Your task to perform on an android device: delete browsing data in the chrome app Image 0: 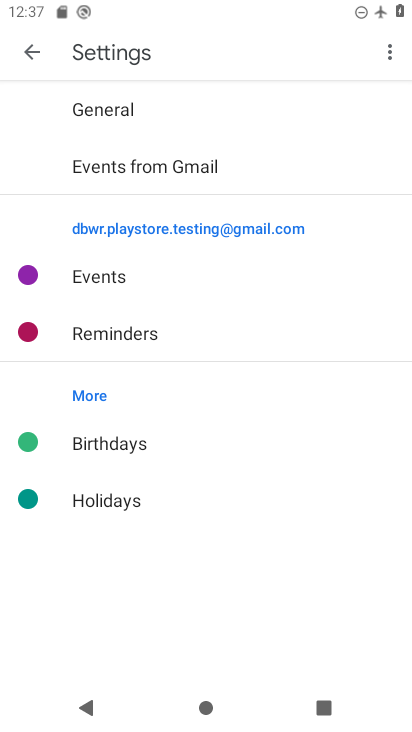
Step 0: press home button
Your task to perform on an android device: delete browsing data in the chrome app Image 1: 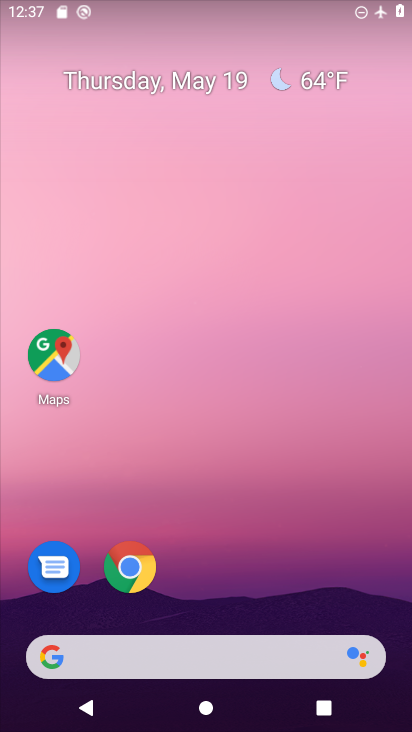
Step 1: click (138, 579)
Your task to perform on an android device: delete browsing data in the chrome app Image 2: 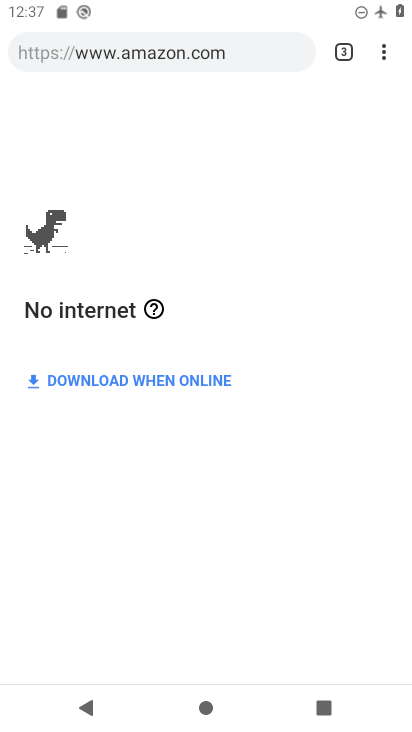
Step 2: drag from (388, 50) to (226, 295)
Your task to perform on an android device: delete browsing data in the chrome app Image 3: 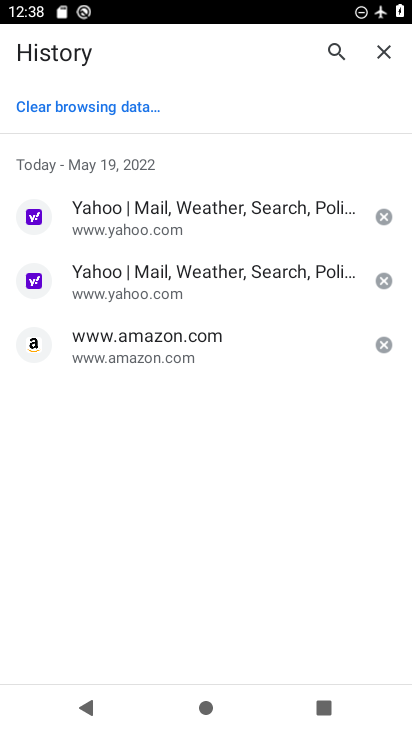
Step 3: click (76, 112)
Your task to perform on an android device: delete browsing data in the chrome app Image 4: 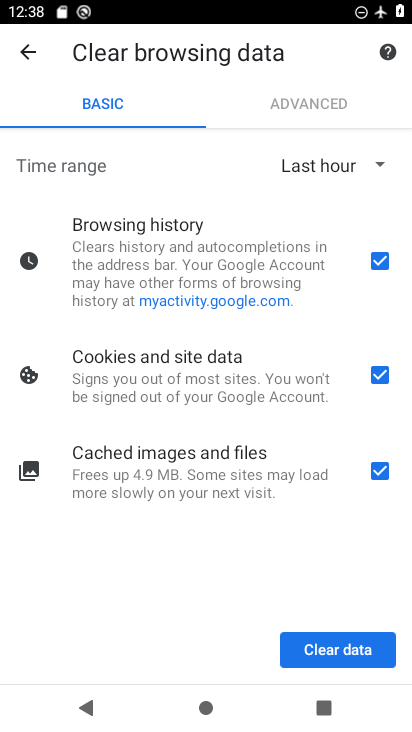
Step 4: click (383, 384)
Your task to perform on an android device: delete browsing data in the chrome app Image 5: 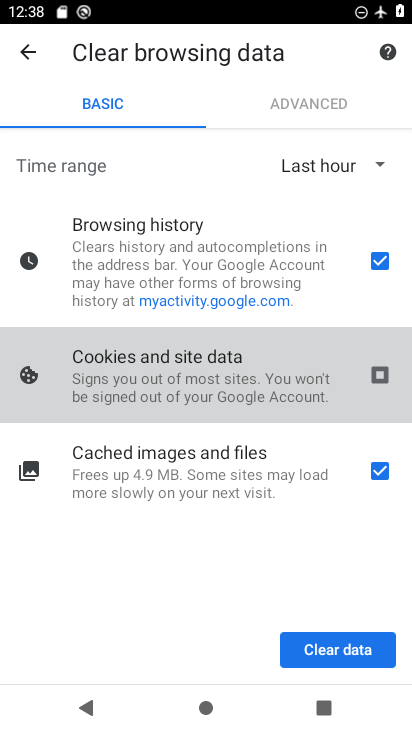
Step 5: click (383, 468)
Your task to perform on an android device: delete browsing data in the chrome app Image 6: 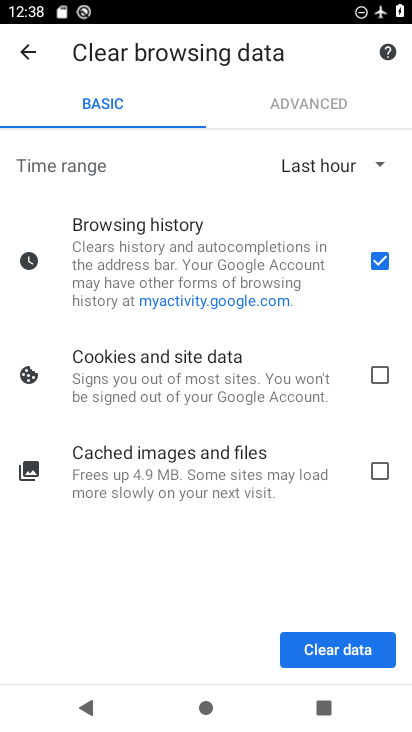
Step 6: click (341, 654)
Your task to perform on an android device: delete browsing data in the chrome app Image 7: 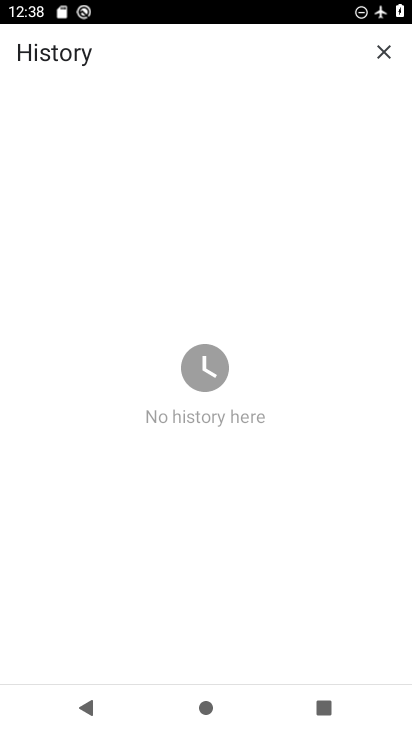
Step 7: task complete